Your task to perform on an android device: change the clock style Image 0: 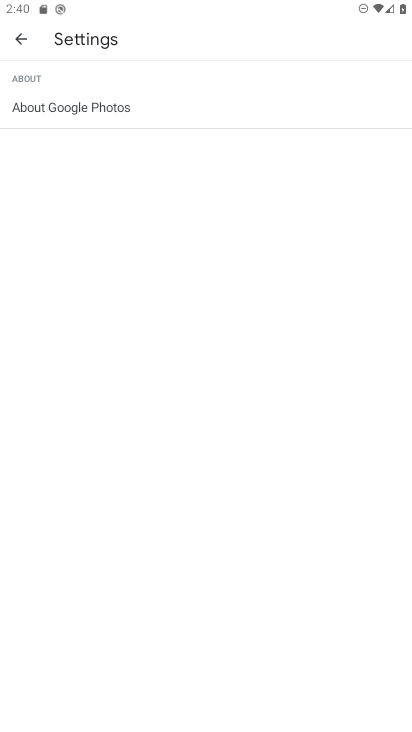
Step 0: press home button
Your task to perform on an android device: change the clock style Image 1: 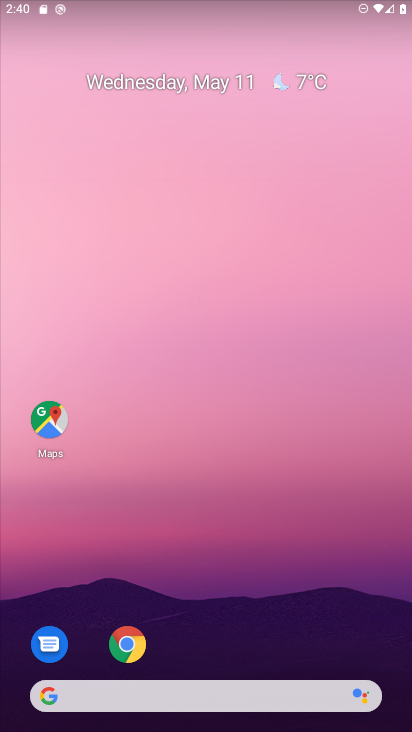
Step 1: drag from (213, 471) to (269, 0)
Your task to perform on an android device: change the clock style Image 2: 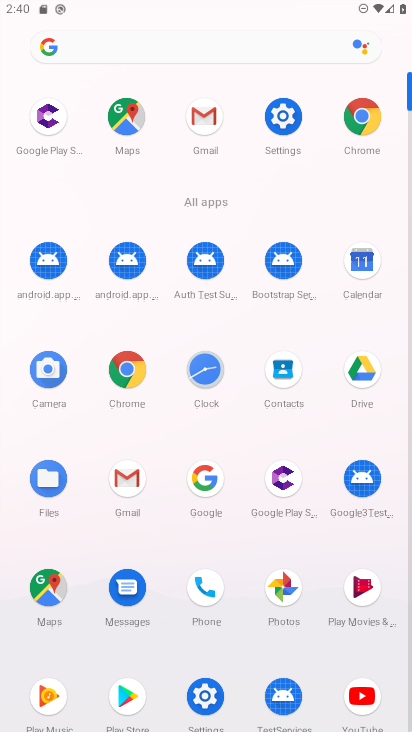
Step 2: click (210, 371)
Your task to perform on an android device: change the clock style Image 3: 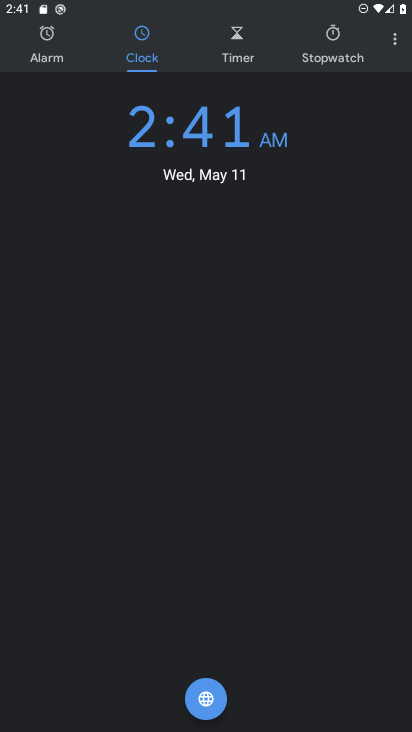
Step 3: click (395, 33)
Your task to perform on an android device: change the clock style Image 4: 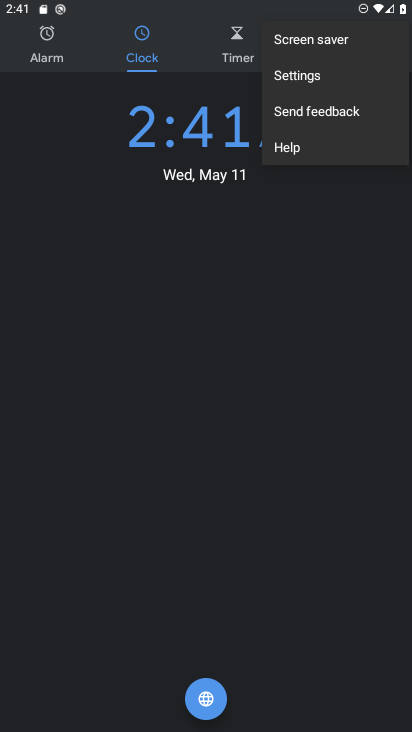
Step 4: click (316, 71)
Your task to perform on an android device: change the clock style Image 5: 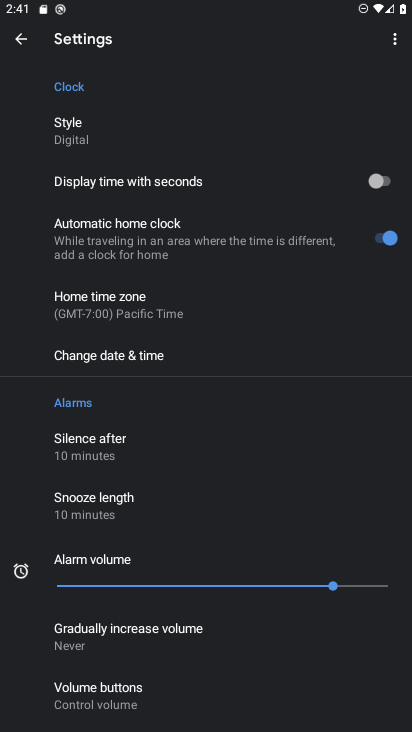
Step 5: click (107, 147)
Your task to perform on an android device: change the clock style Image 6: 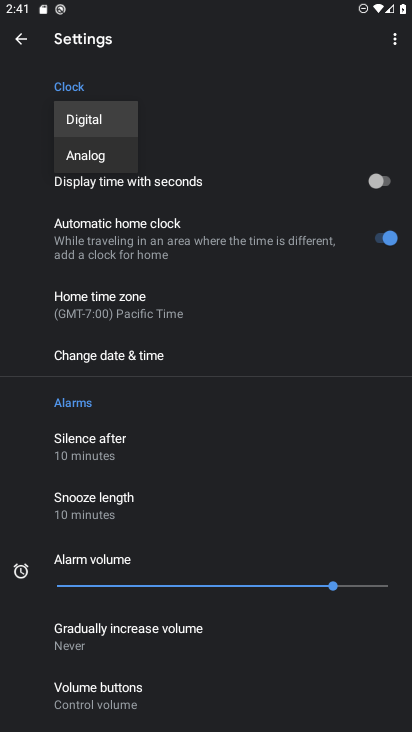
Step 6: click (87, 158)
Your task to perform on an android device: change the clock style Image 7: 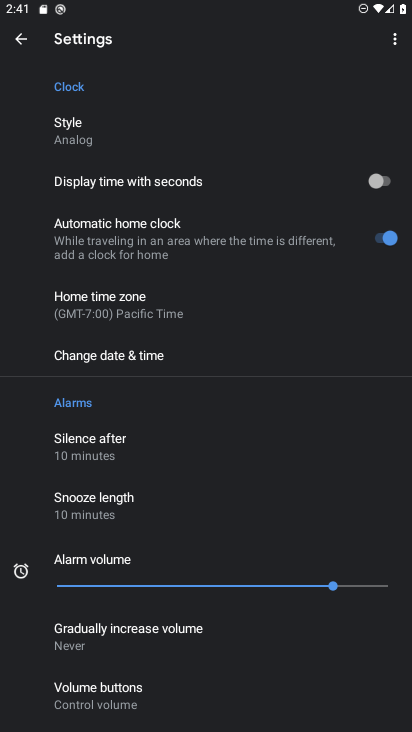
Step 7: task complete